Your task to perform on an android device: remove spam from my inbox in the gmail app Image 0: 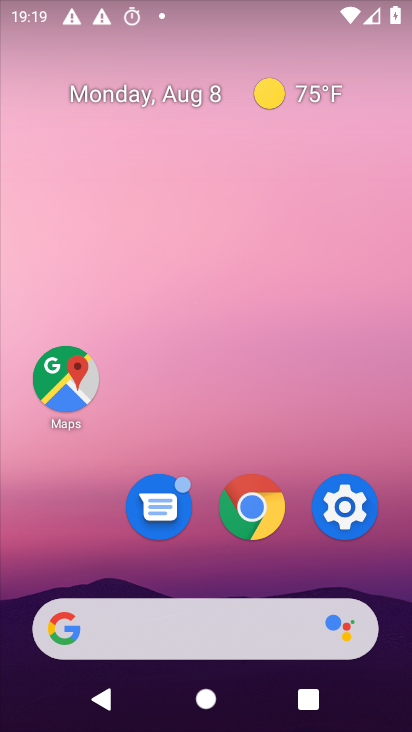
Step 0: drag from (267, 627) to (202, 173)
Your task to perform on an android device: remove spam from my inbox in the gmail app Image 1: 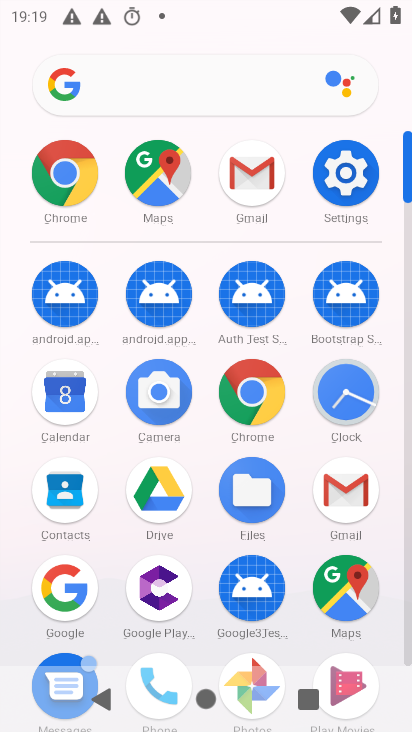
Step 1: click (251, 188)
Your task to perform on an android device: remove spam from my inbox in the gmail app Image 2: 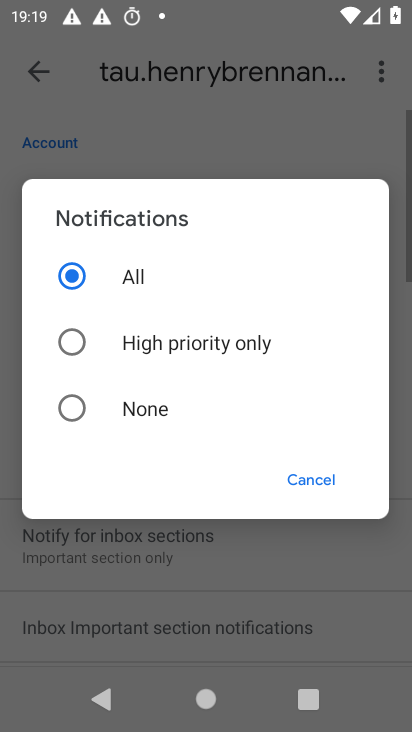
Step 2: click (197, 159)
Your task to perform on an android device: remove spam from my inbox in the gmail app Image 3: 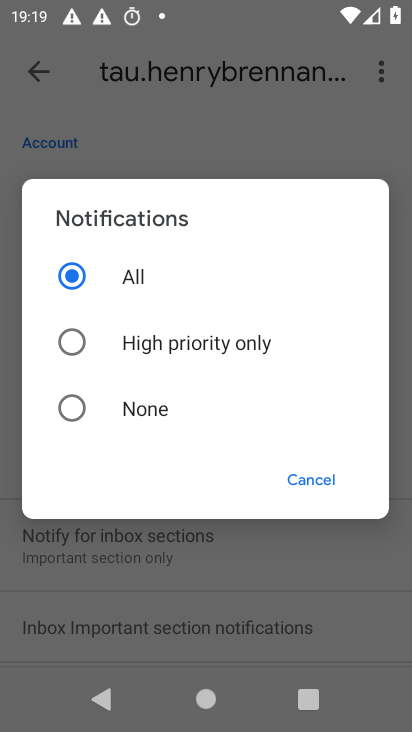
Step 3: click (323, 475)
Your task to perform on an android device: remove spam from my inbox in the gmail app Image 4: 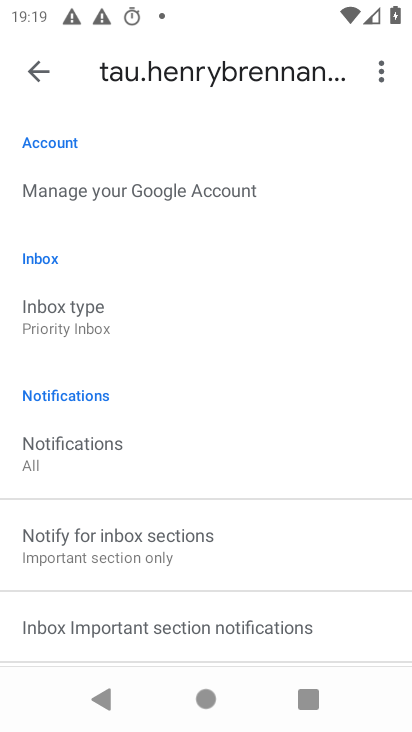
Step 4: click (34, 83)
Your task to perform on an android device: remove spam from my inbox in the gmail app Image 5: 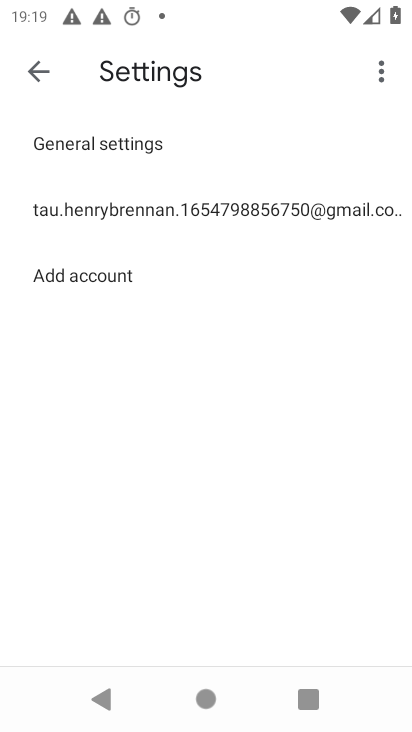
Step 5: click (34, 83)
Your task to perform on an android device: remove spam from my inbox in the gmail app Image 6: 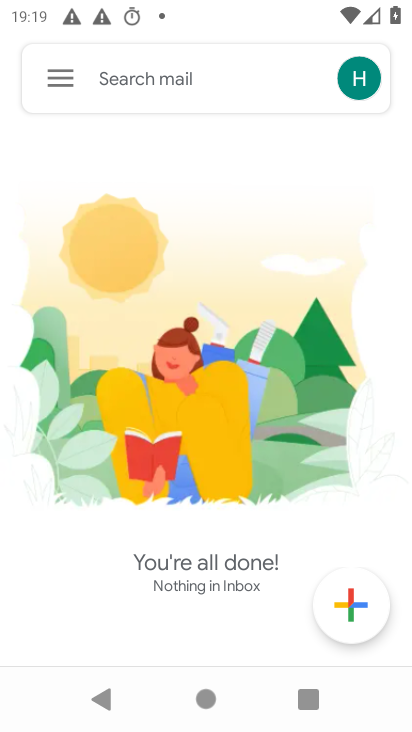
Step 6: click (34, 83)
Your task to perform on an android device: remove spam from my inbox in the gmail app Image 7: 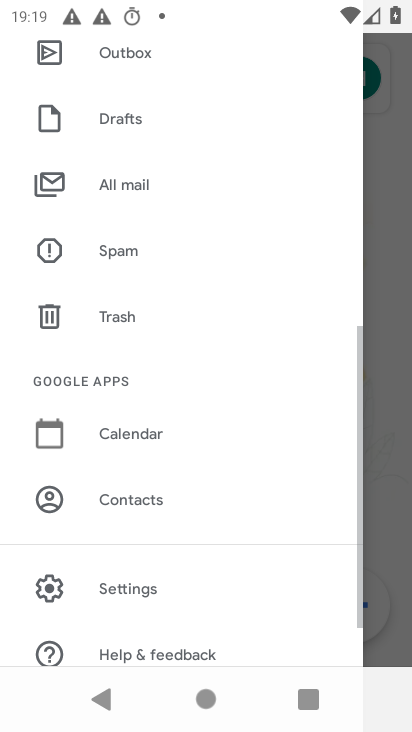
Step 7: click (130, 256)
Your task to perform on an android device: remove spam from my inbox in the gmail app Image 8: 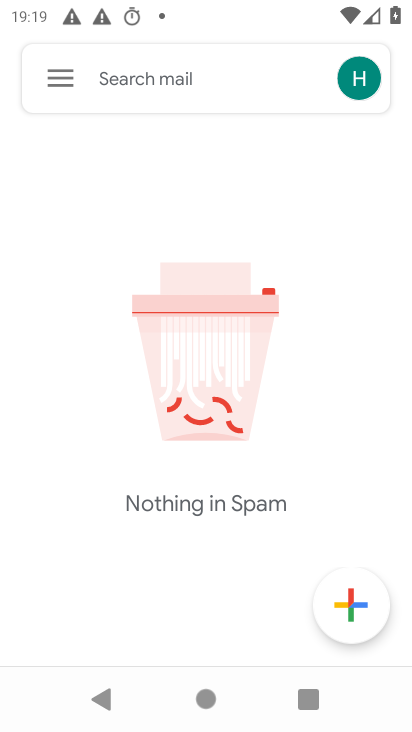
Step 8: task complete